Your task to perform on an android device: Go to privacy settings Image 0: 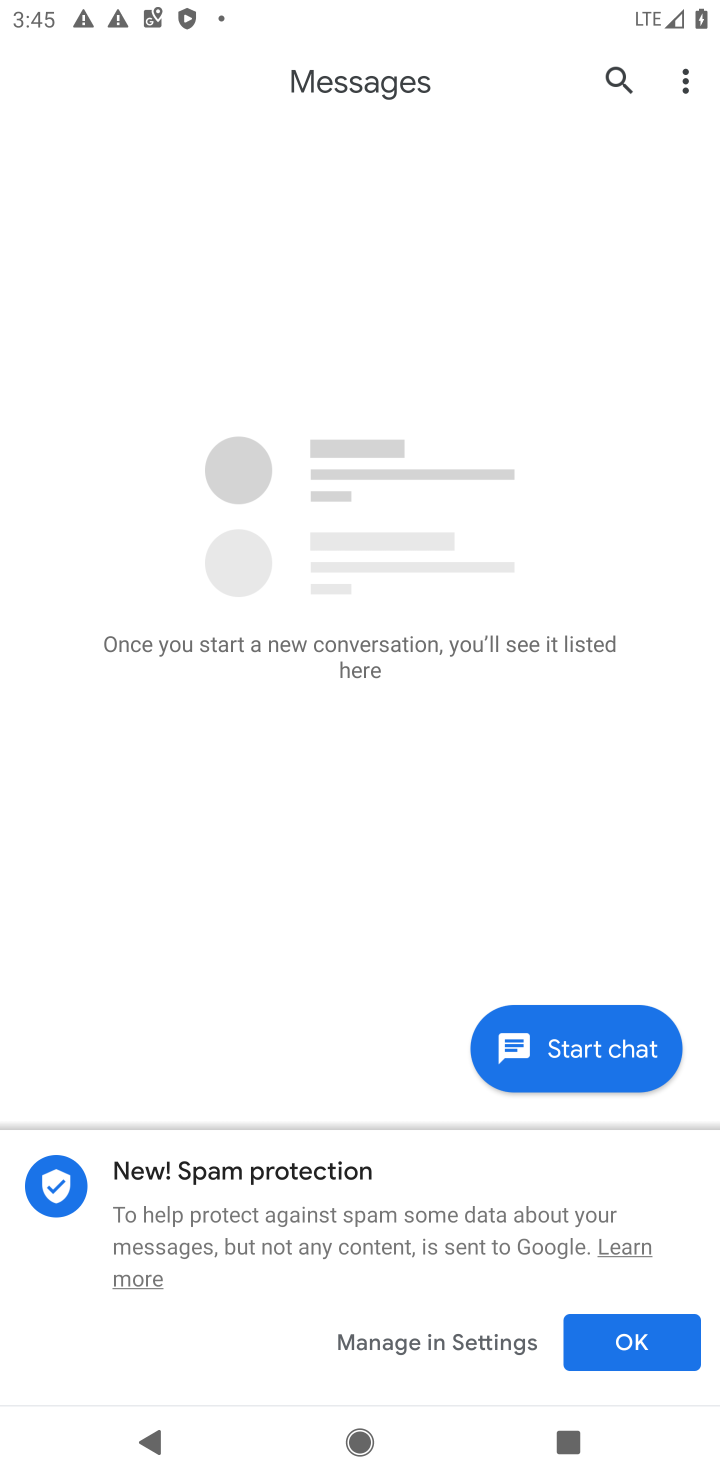
Step 0: press home button
Your task to perform on an android device: Go to privacy settings Image 1: 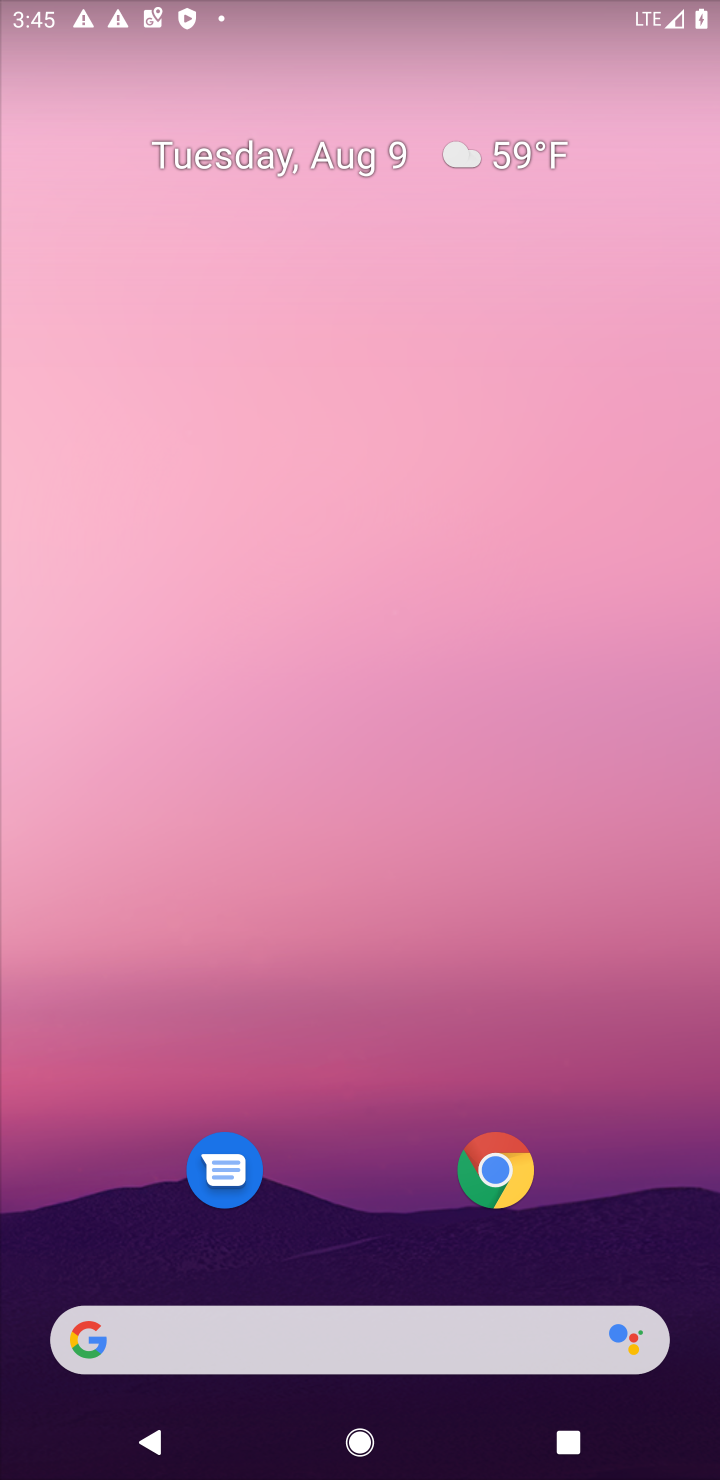
Step 1: click (499, 187)
Your task to perform on an android device: Go to privacy settings Image 2: 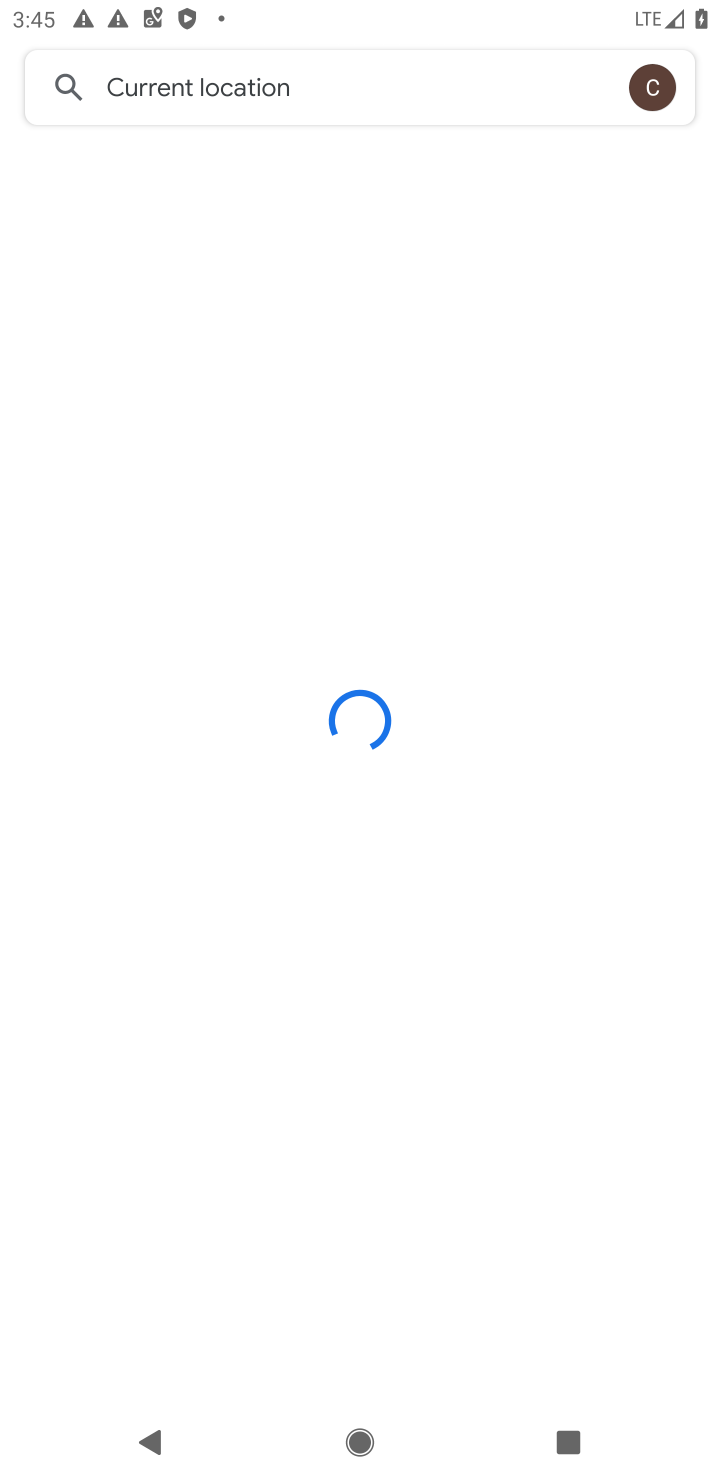
Step 2: press home button
Your task to perform on an android device: Go to privacy settings Image 3: 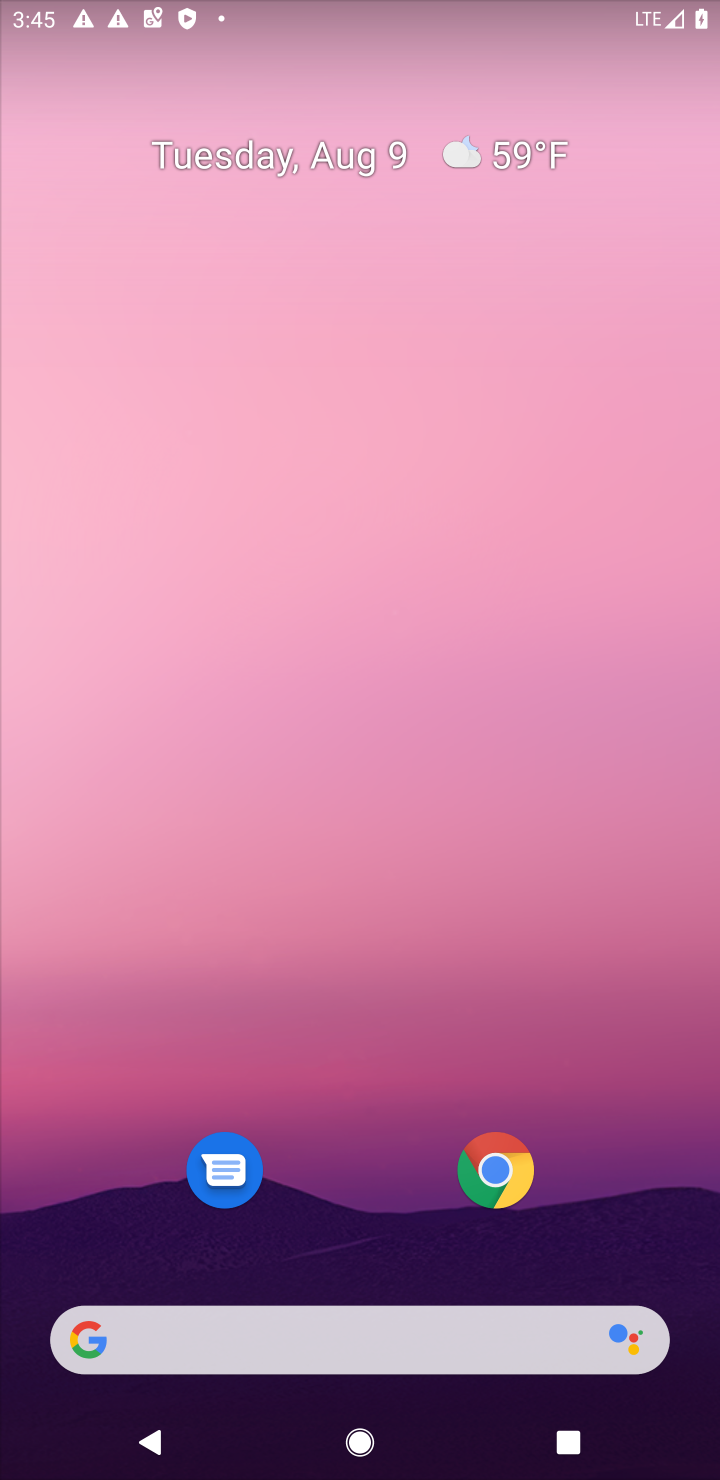
Step 3: drag from (356, 1115) to (430, 152)
Your task to perform on an android device: Go to privacy settings Image 4: 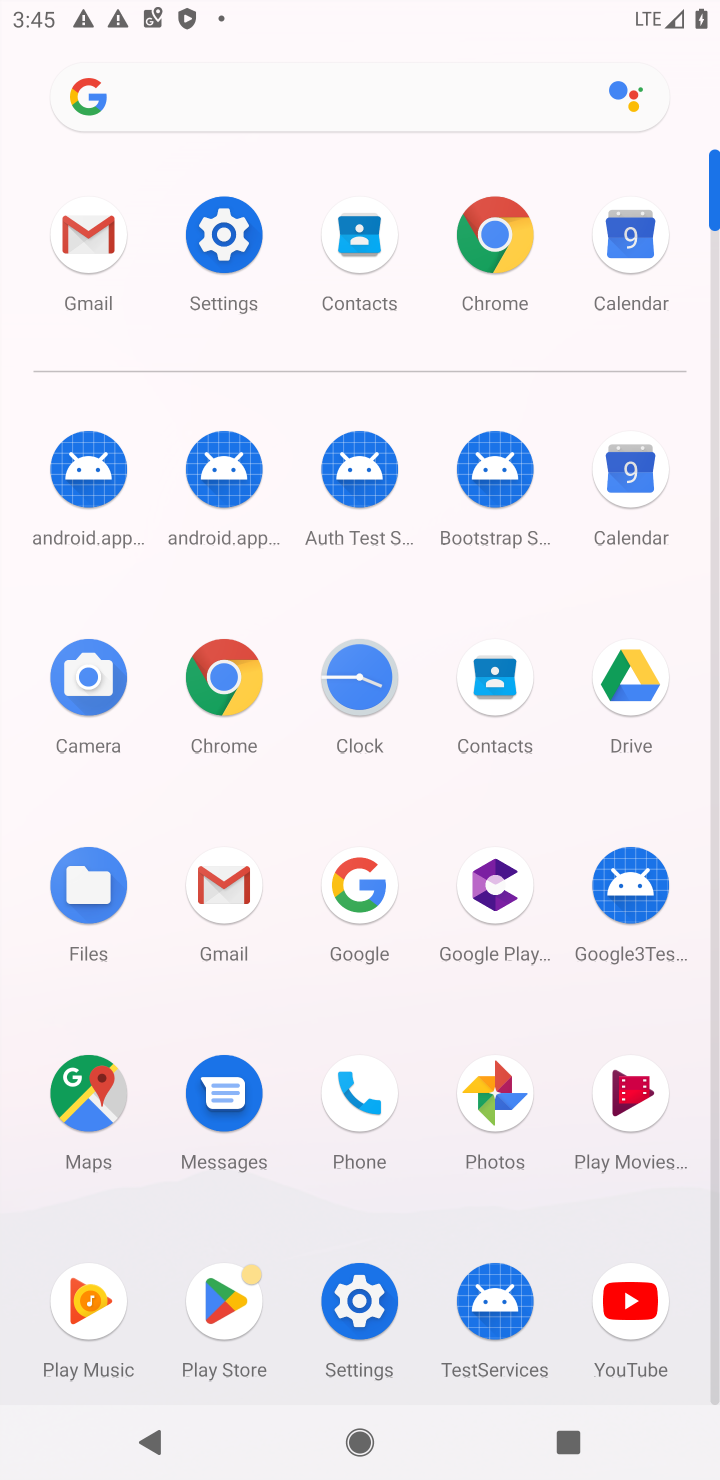
Step 4: click (233, 258)
Your task to perform on an android device: Go to privacy settings Image 5: 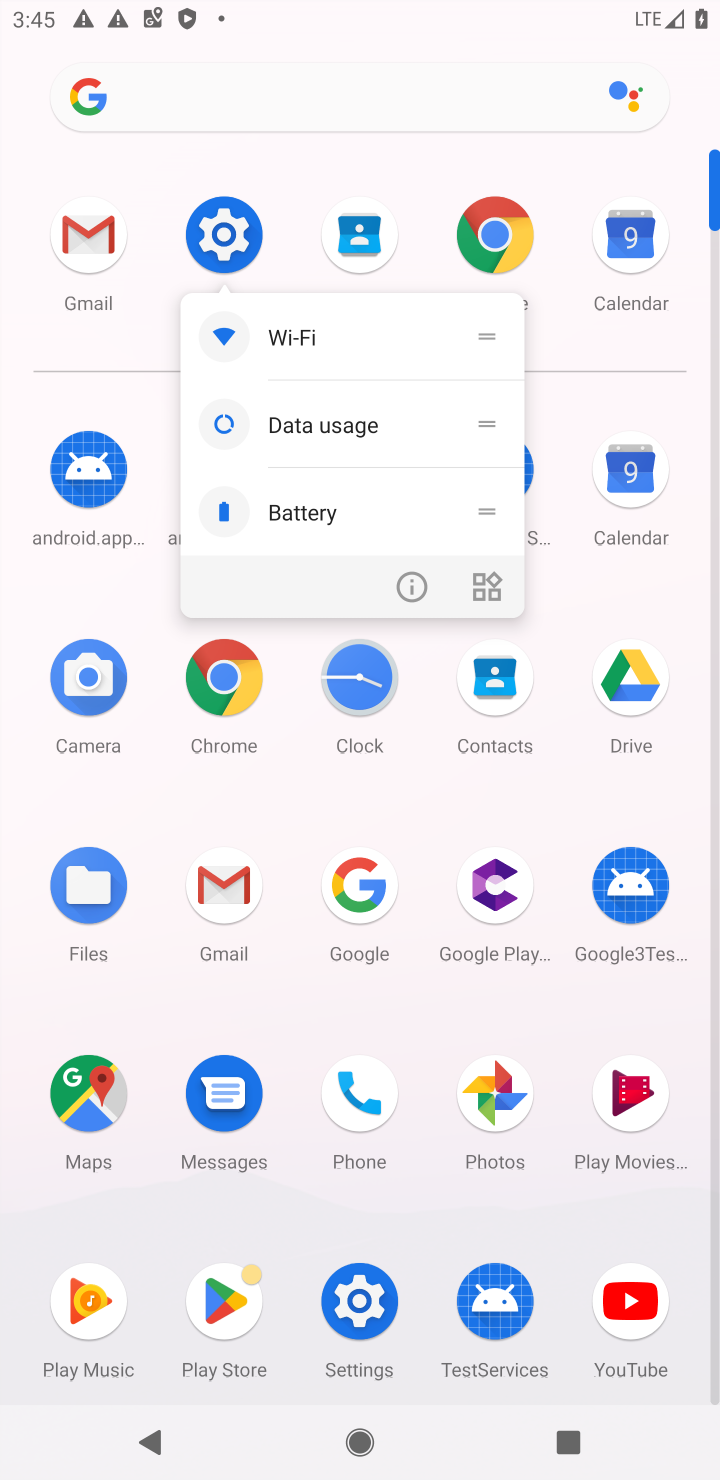
Step 5: click (226, 254)
Your task to perform on an android device: Go to privacy settings Image 6: 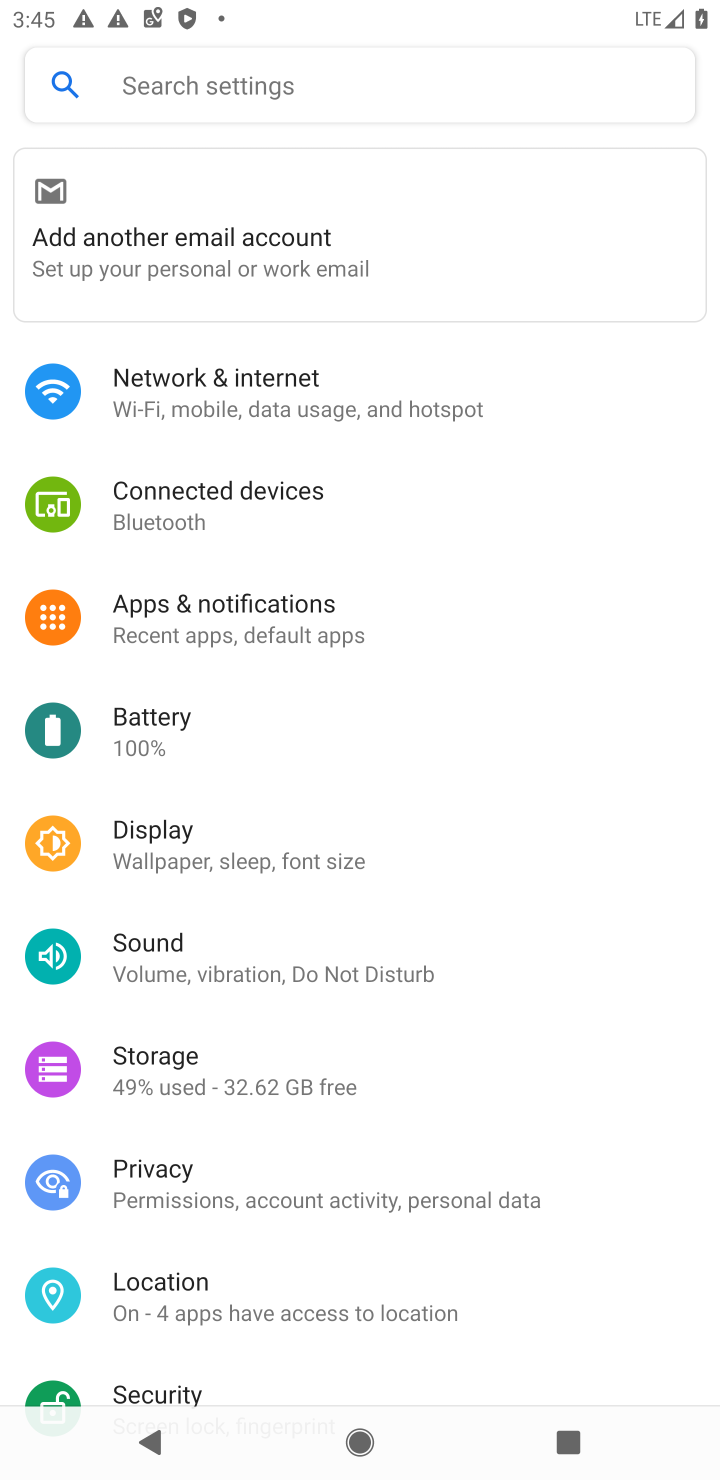
Step 6: click (164, 1177)
Your task to perform on an android device: Go to privacy settings Image 7: 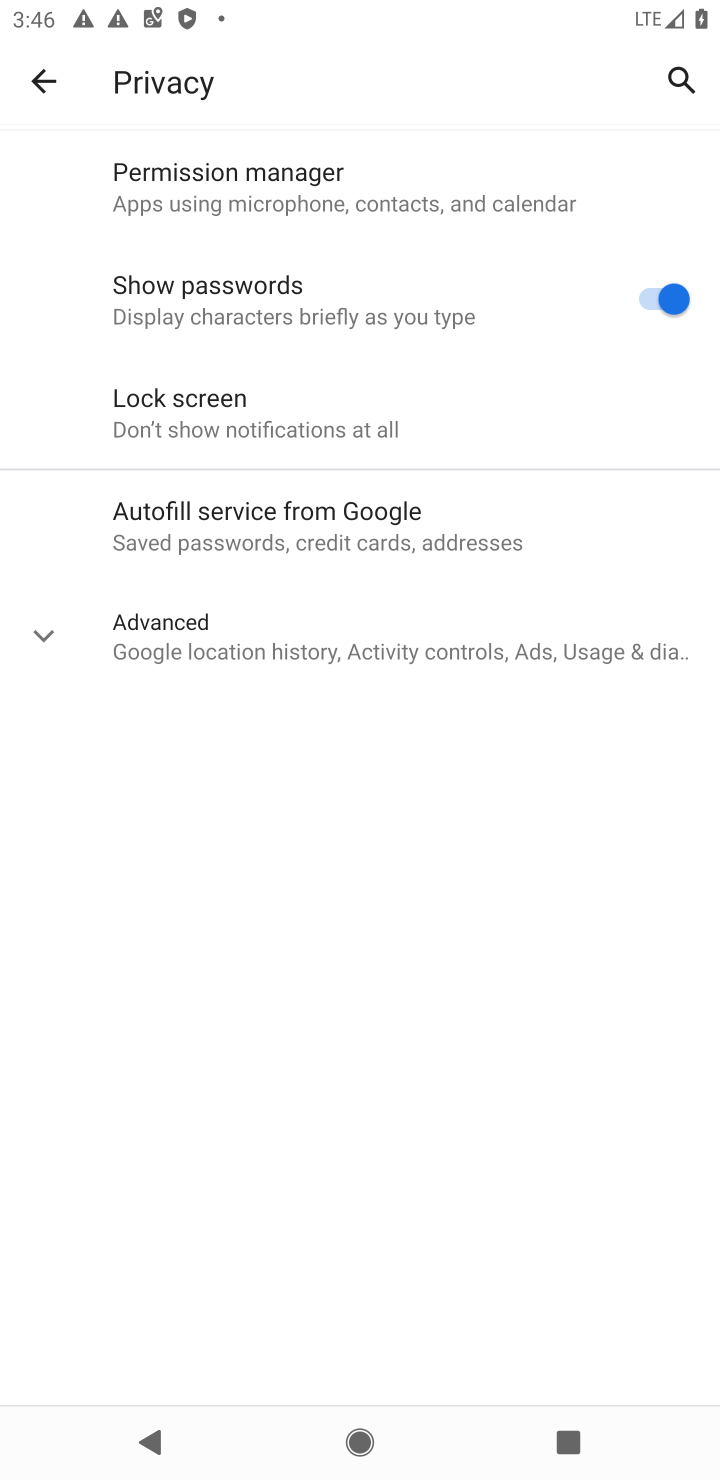
Step 7: task complete